Your task to perform on an android device: change notifications settings Image 0: 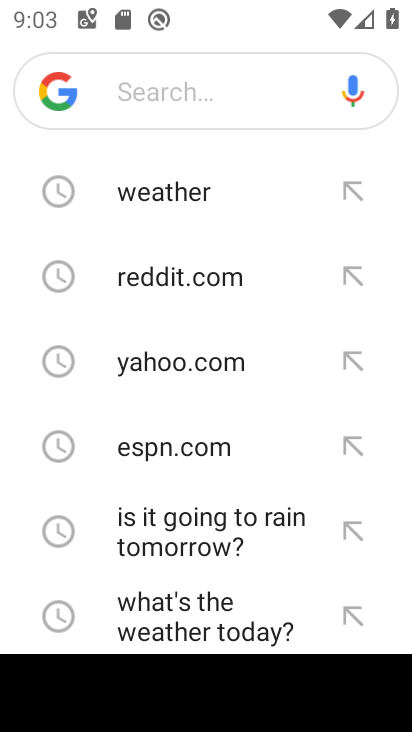
Step 0: press home button
Your task to perform on an android device: change notifications settings Image 1: 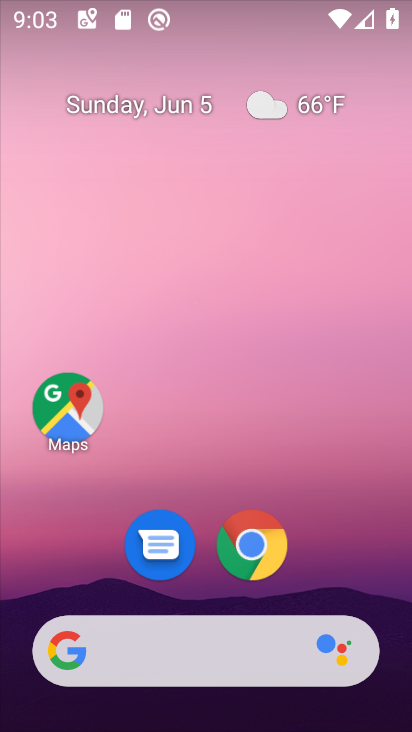
Step 1: drag from (373, 547) to (365, 125)
Your task to perform on an android device: change notifications settings Image 2: 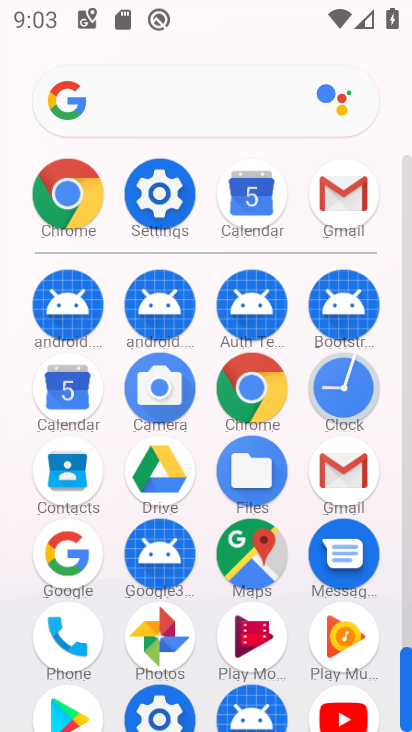
Step 2: click (167, 215)
Your task to perform on an android device: change notifications settings Image 3: 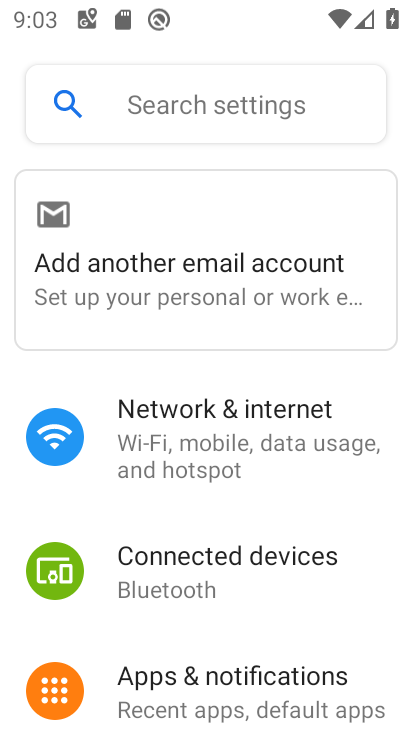
Step 3: drag from (304, 509) to (345, 351)
Your task to perform on an android device: change notifications settings Image 4: 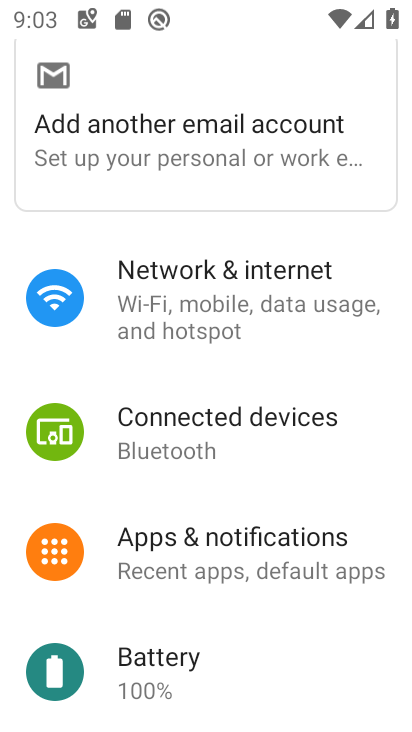
Step 4: drag from (371, 494) to (365, 338)
Your task to perform on an android device: change notifications settings Image 5: 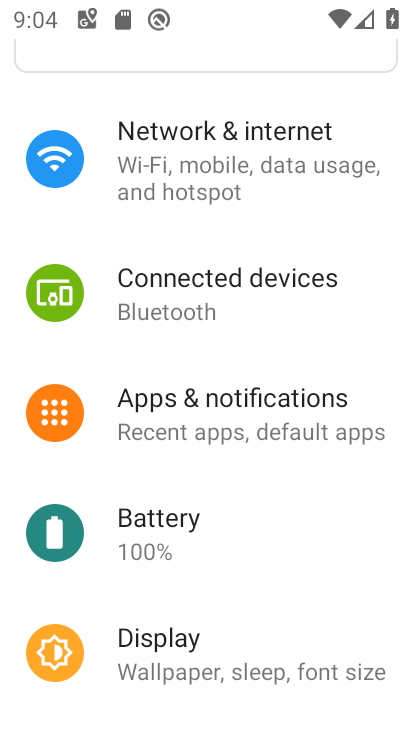
Step 5: drag from (342, 537) to (335, 450)
Your task to perform on an android device: change notifications settings Image 6: 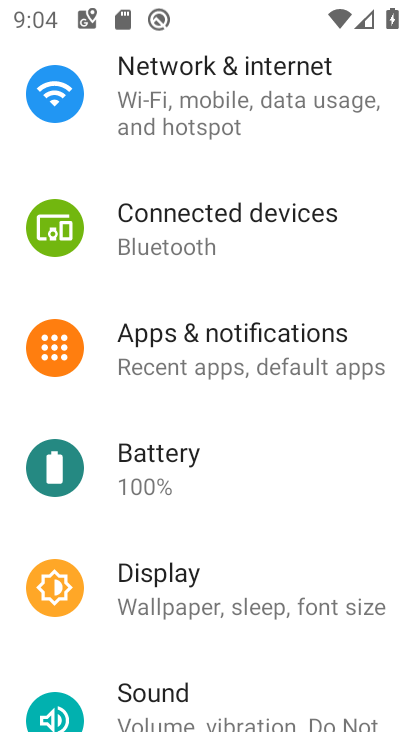
Step 6: click (286, 344)
Your task to perform on an android device: change notifications settings Image 7: 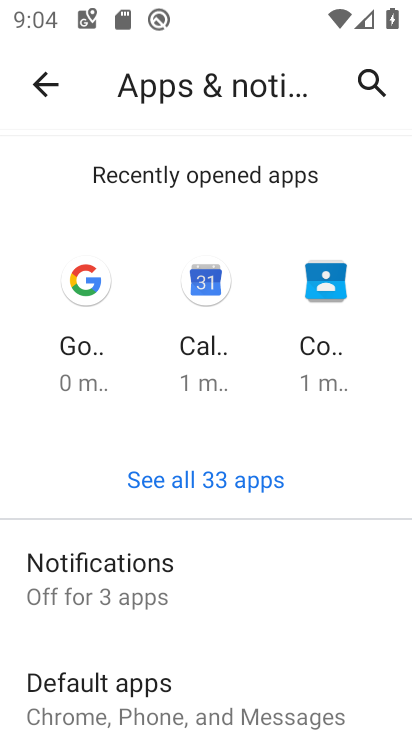
Step 7: drag from (354, 601) to (346, 466)
Your task to perform on an android device: change notifications settings Image 8: 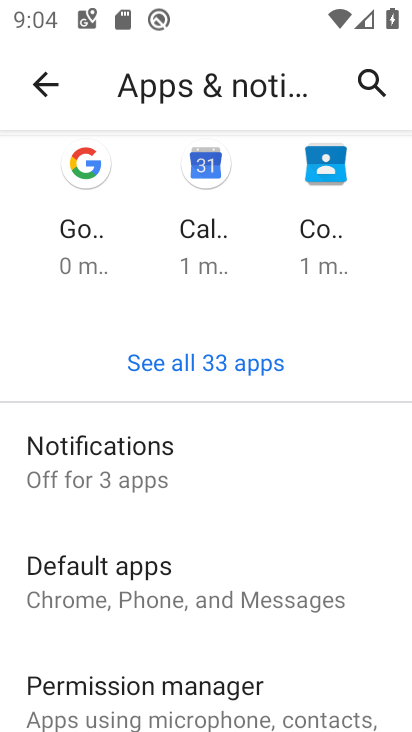
Step 8: click (127, 469)
Your task to perform on an android device: change notifications settings Image 9: 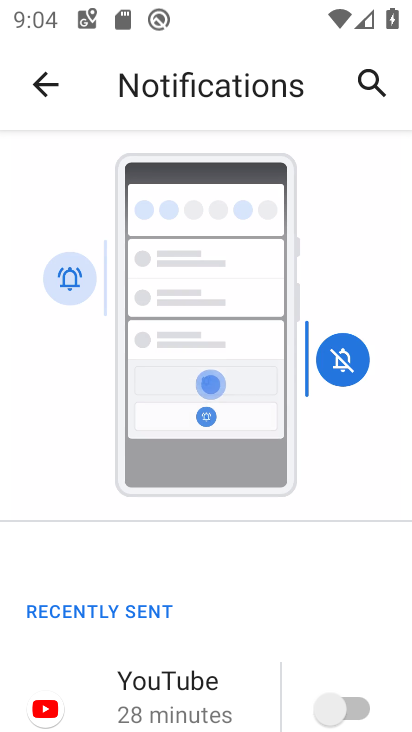
Step 9: drag from (255, 576) to (258, 405)
Your task to perform on an android device: change notifications settings Image 10: 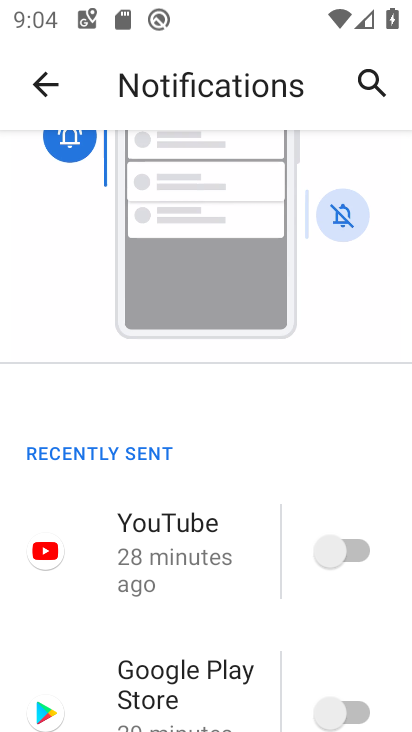
Step 10: drag from (262, 571) to (229, 374)
Your task to perform on an android device: change notifications settings Image 11: 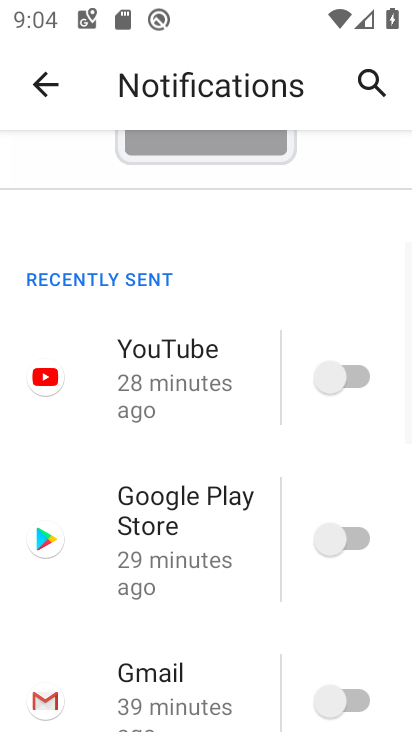
Step 11: click (311, 385)
Your task to perform on an android device: change notifications settings Image 12: 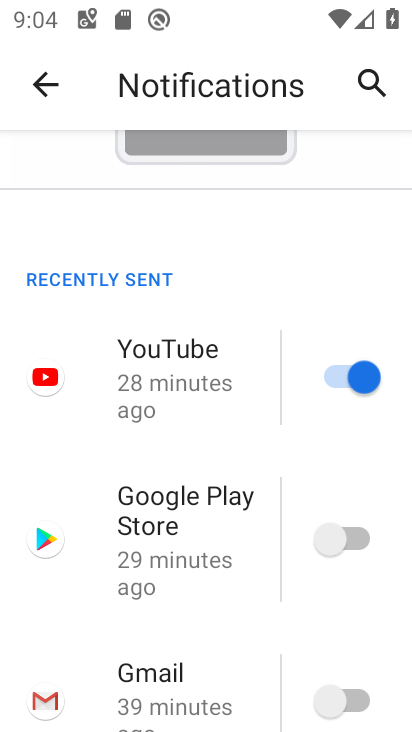
Step 12: drag from (236, 478) to (240, 309)
Your task to perform on an android device: change notifications settings Image 13: 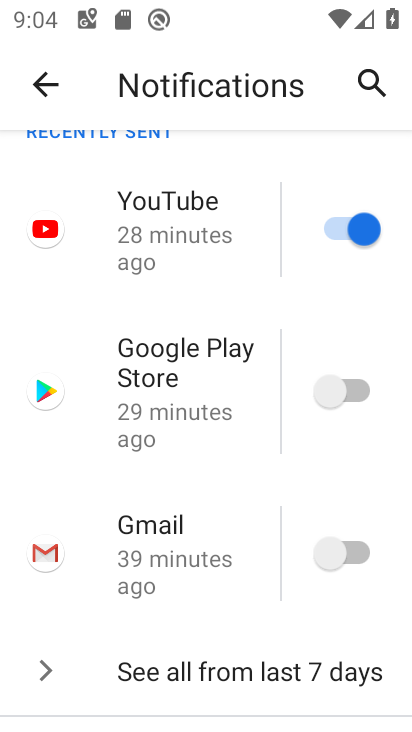
Step 13: click (327, 413)
Your task to perform on an android device: change notifications settings Image 14: 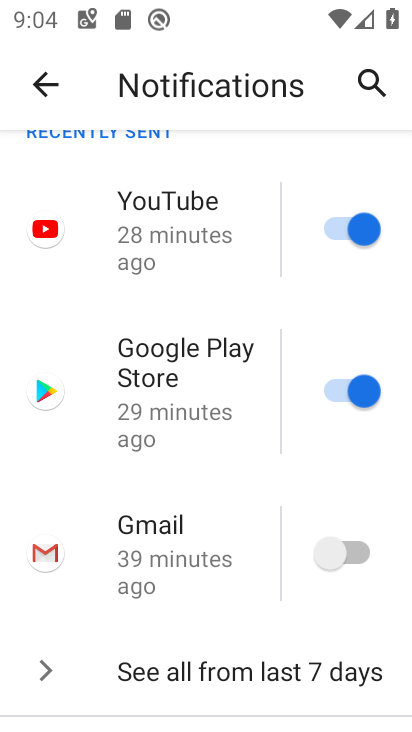
Step 14: click (352, 555)
Your task to perform on an android device: change notifications settings Image 15: 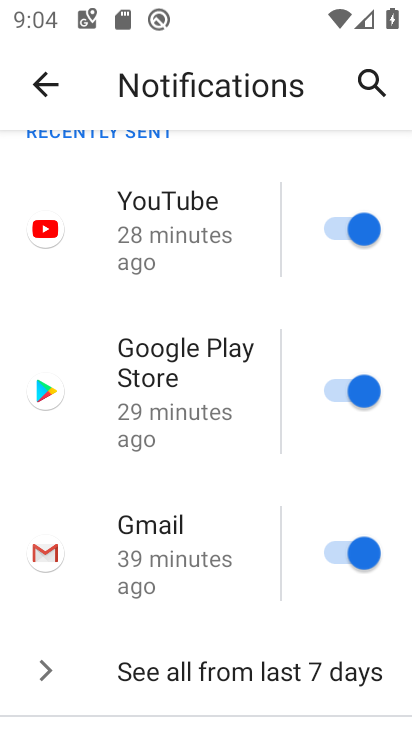
Step 15: task complete